Your task to perform on an android device: turn on improve location accuracy Image 0: 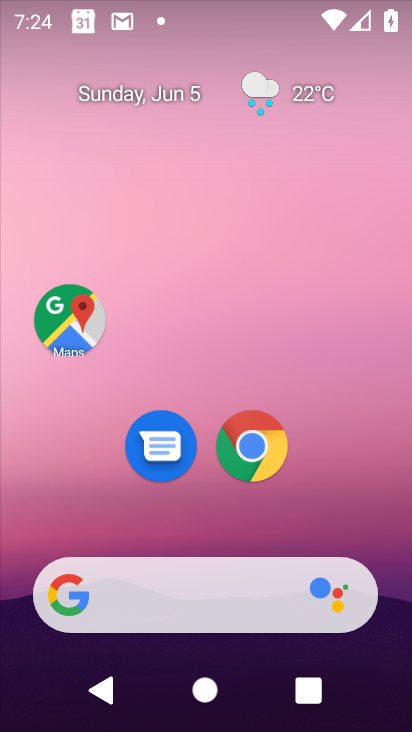
Step 0: drag from (227, 527) to (255, 138)
Your task to perform on an android device: turn on improve location accuracy Image 1: 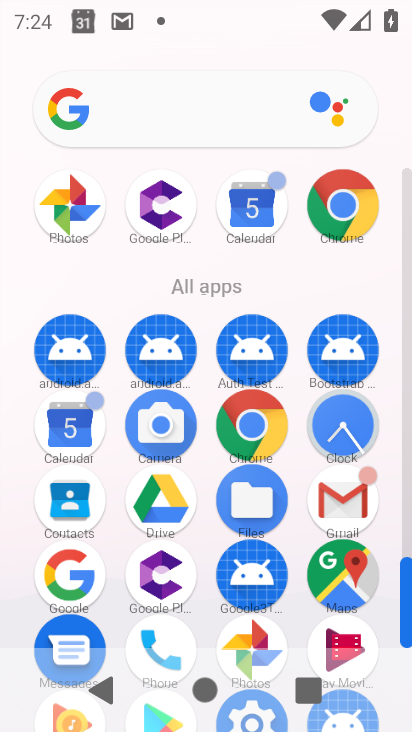
Step 1: drag from (207, 393) to (286, 177)
Your task to perform on an android device: turn on improve location accuracy Image 2: 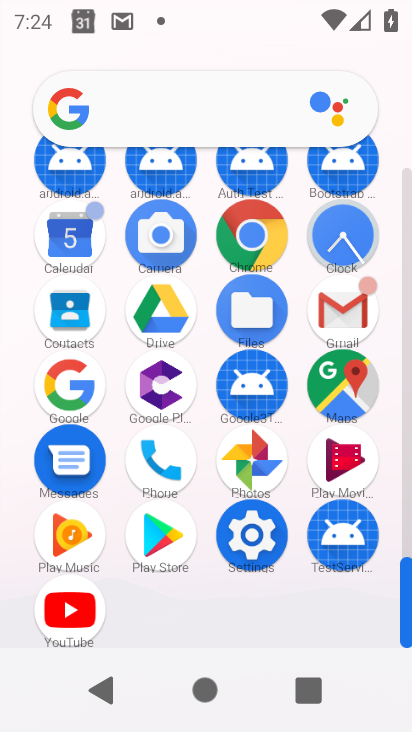
Step 2: click (248, 534)
Your task to perform on an android device: turn on improve location accuracy Image 3: 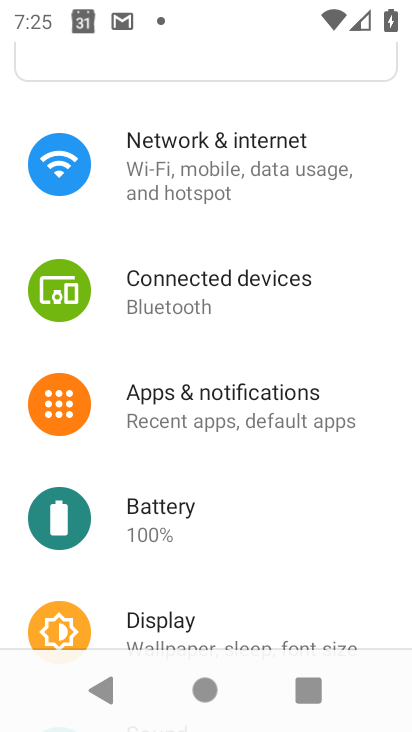
Step 3: drag from (213, 582) to (331, 134)
Your task to perform on an android device: turn on improve location accuracy Image 4: 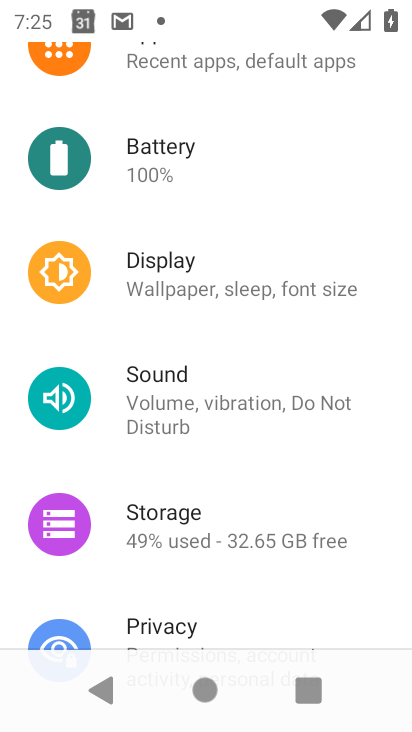
Step 4: drag from (219, 580) to (324, 235)
Your task to perform on an android device: turn on improve location accuracy Image 5: 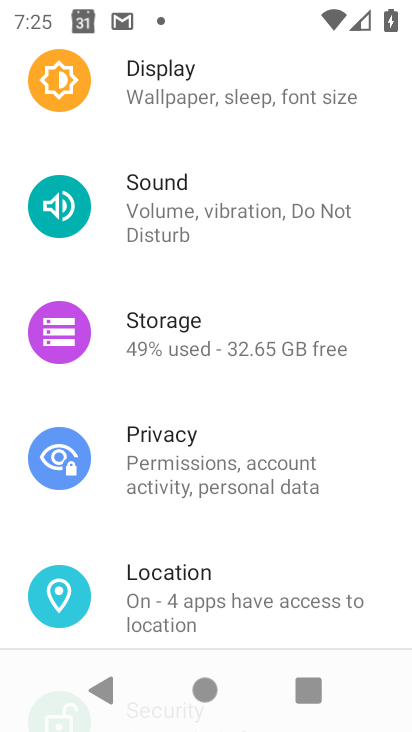
Step 5: click (223, 594)
Your task to perform on an android device: turn on improve location accuracy Image 6: 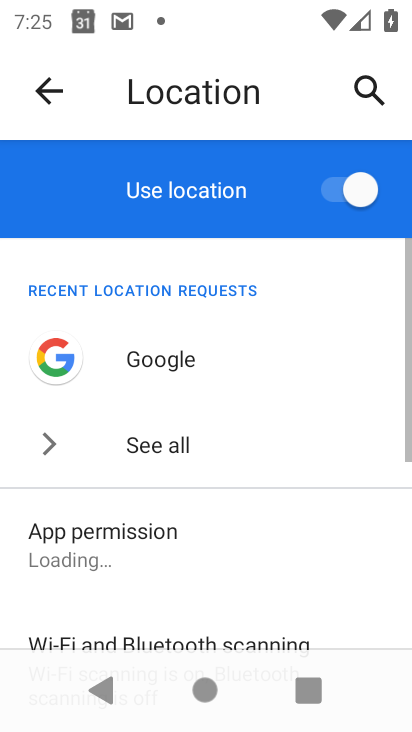
Step 6: drag from (229, 559) to (334, 274)
Your task to perform on an android device: turn on improve location accuracy Image 7: 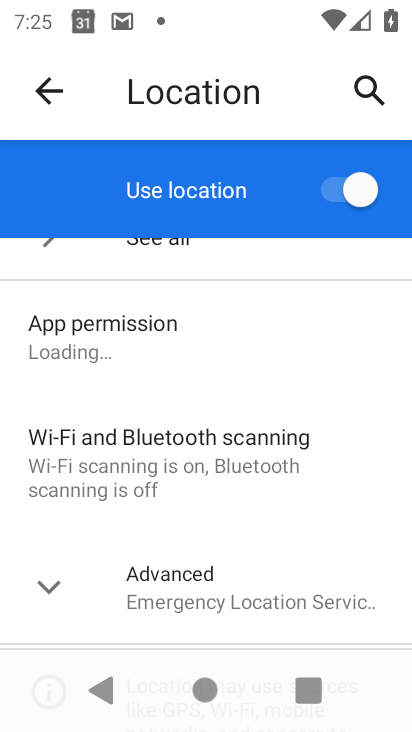
Step 7: drag from (222, 499) to (346, 169)
Your task to perform on an android device: turn on improve location accuracy Image 8: 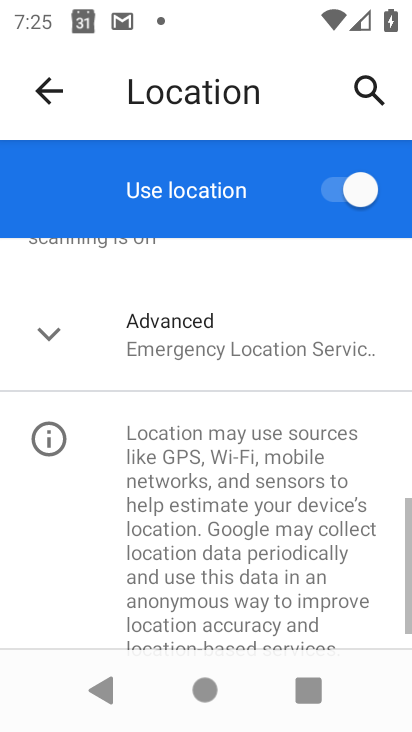
Step 8: click (45, 323)
Your task to perform on an android device: turn on improve location accuracy Image 9: 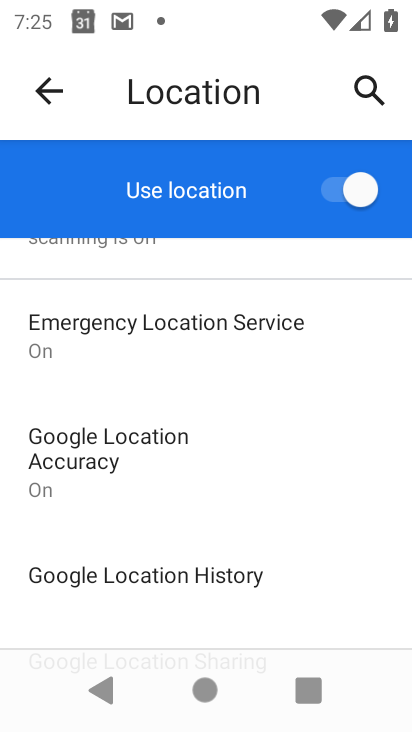
Step 9: drag from (205, 553) to (289, 322)
Your task to perform on an android device: turn on improve location accuracy Image 10: 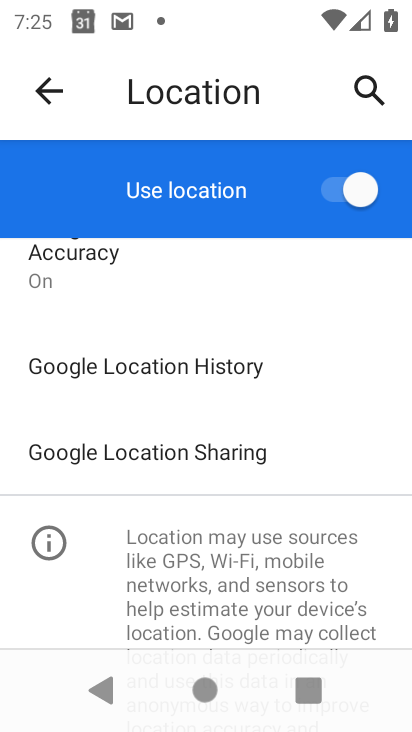
Step 10: click (91, 262)
Your task to perform on an android device: turn on improve location accuracy Image 11: 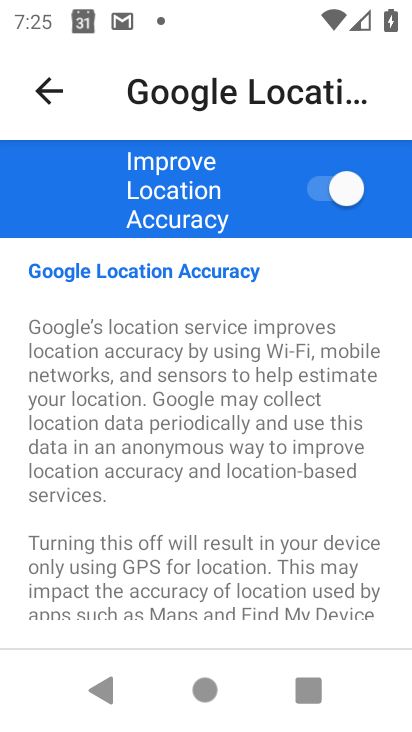
Step 11: task complete